Your task to perform on an android device: see sites visited before in the chrome app Image 0: 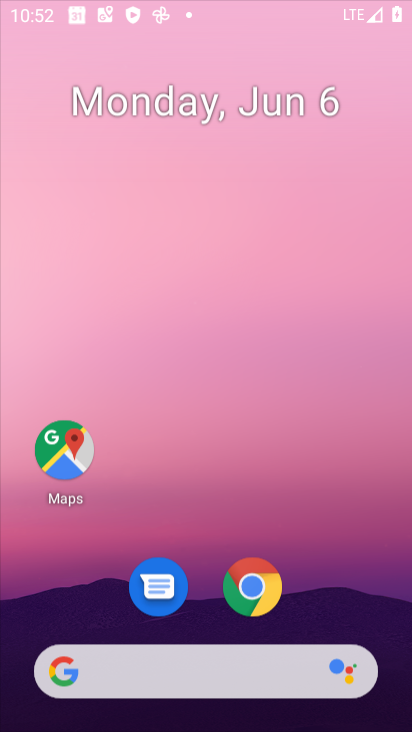
Step 0: drag from (268, 695) to (306, 2)
Your task to perform on an android device: see sites visited before in the chrome app Image 1: 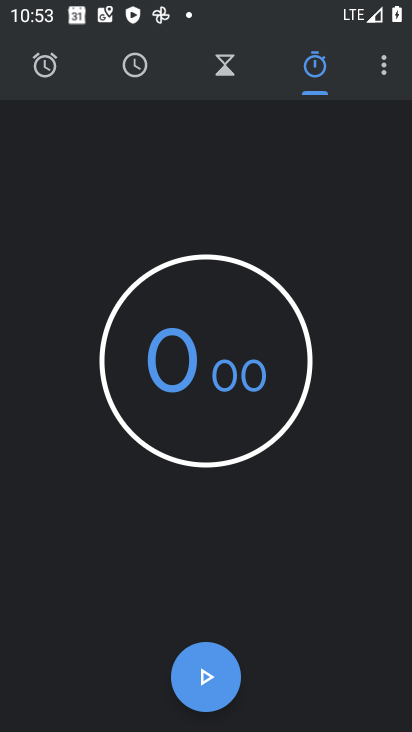
Step 1: press home button
Your task to perform on an android device: see sites visited before in the chrome app Image 2: 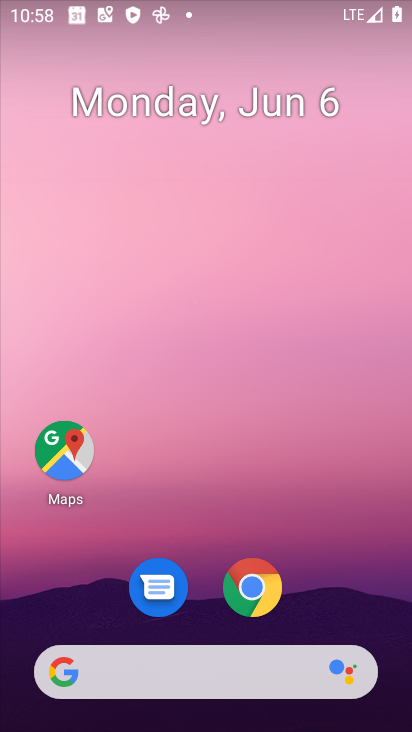
Step 2: click (277, 580)
Your task to perform on an android device: see sites visited before in the chrome app Image 3: 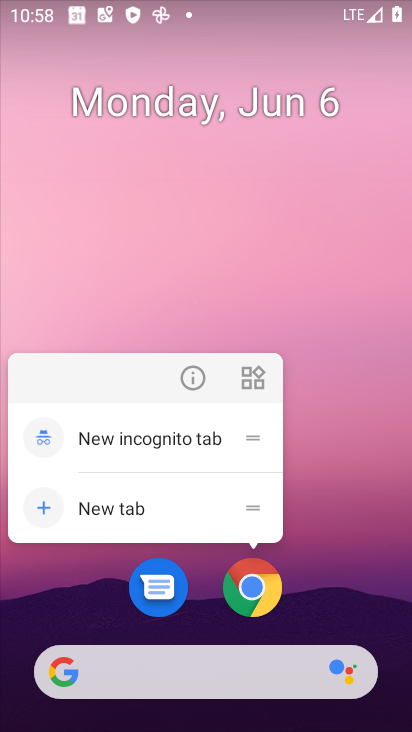
Step 3: click (238, 581)
Your task to perform on an android device: see sites visited before in the chrome app Image 4: 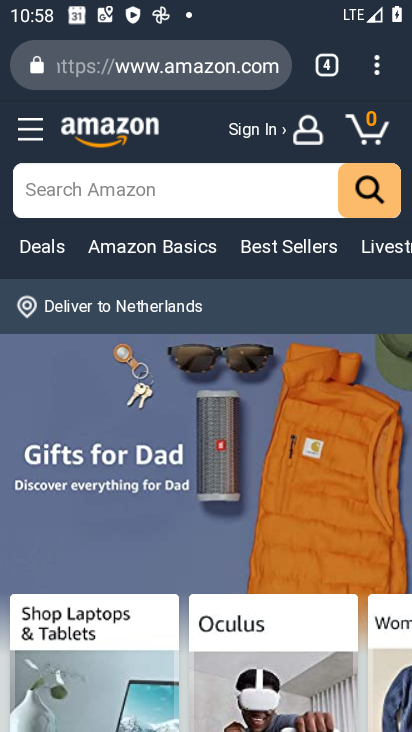
Step 4: click (383, 82)
Your task to perform on an android device: see sites visited before in the chrome app Image 5: 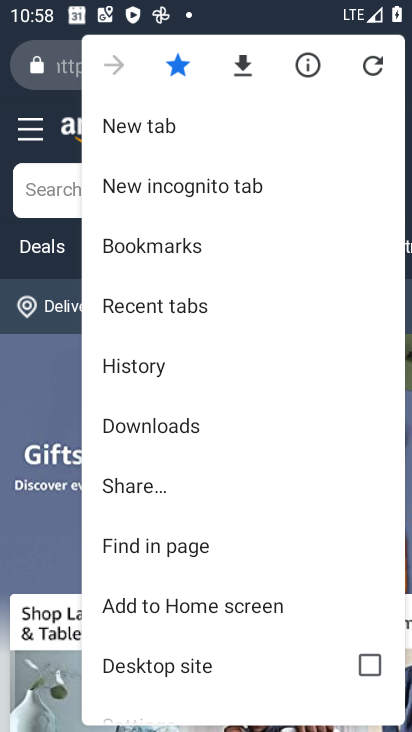
Step 5: click (189, 303)
Your task to perform on an android device: see sites visited before in the chrome app Image 6: 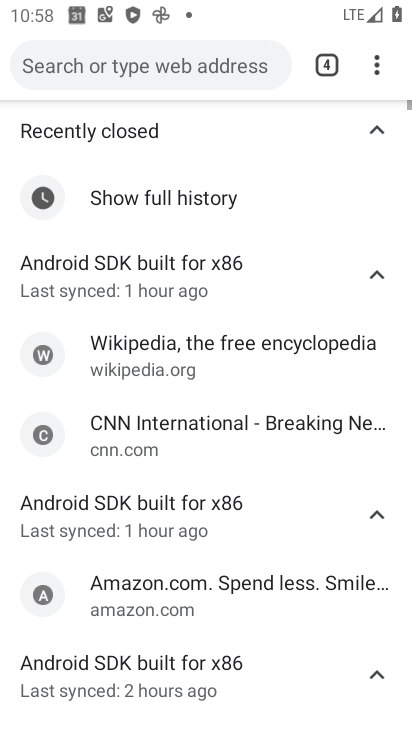
Step 6: task complete